Your task to perform on an android device: Open settings on Google Maps Image 0: 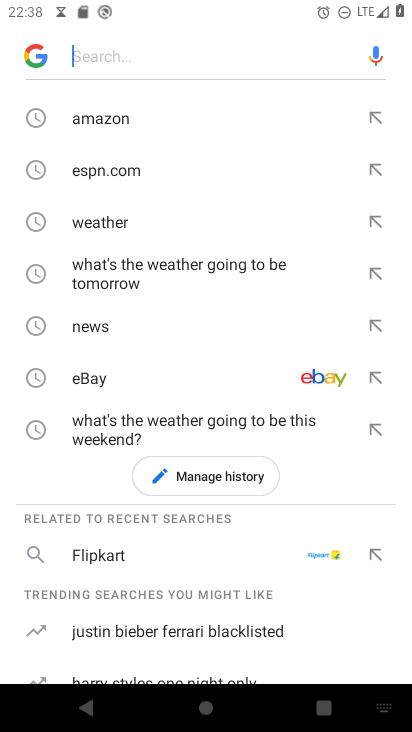
Step 0: press home button
Your task to perform on an android device: Open settings on Google Maps Image 1: 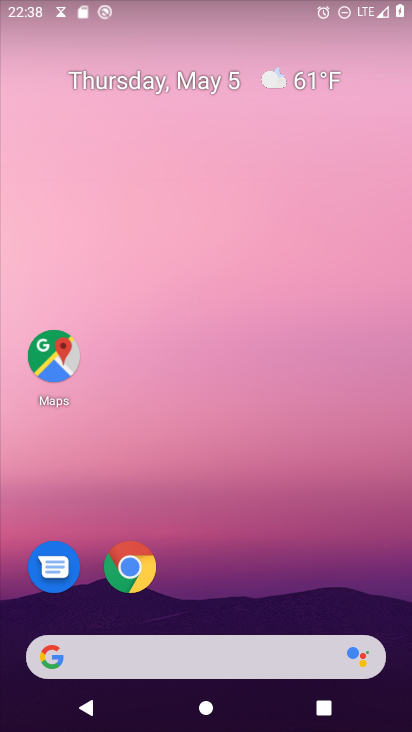
Step 1: drag from (240, 725) to (234, 259)
Your task to perform on an android device: Open settings on Google Maps Image 2: 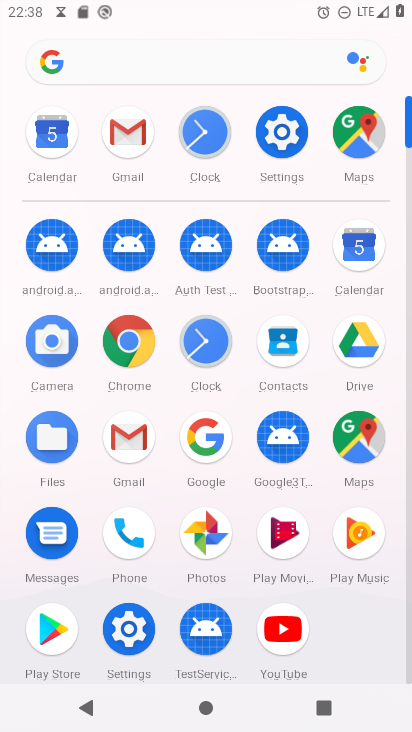
Step 2: click (362, 435)
Your task to perform on an android device: Open settings on Google Maps Image 3: 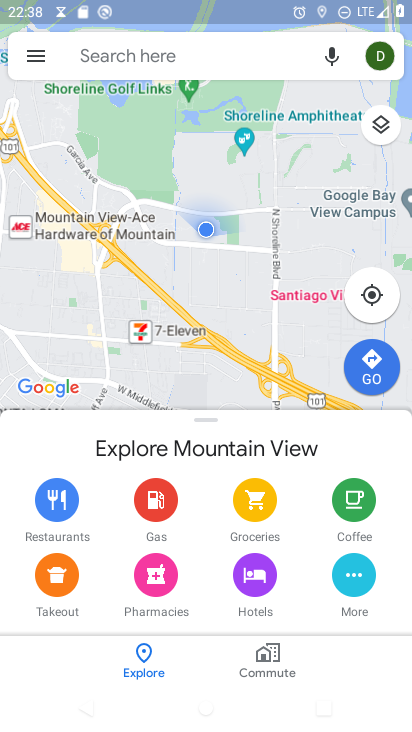
Step 3: click (36, 58)
Your task to perform on an android device: Open settings on Google Maps Image 4: 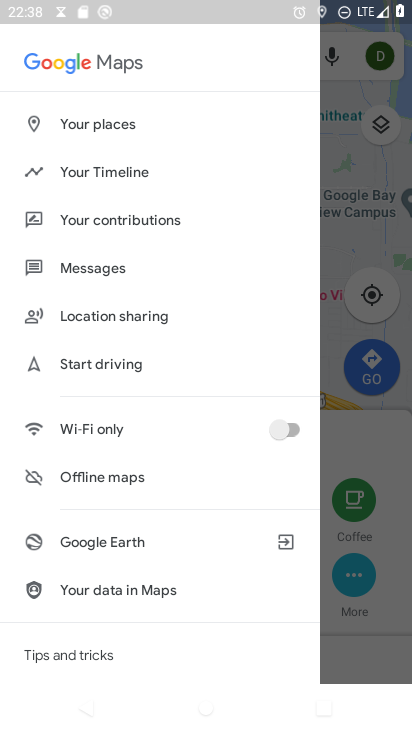
Step 4: drag from (123, 625) to (124, 341)
Your task to perform on an android device: Open settings on Google Maps Image 5: 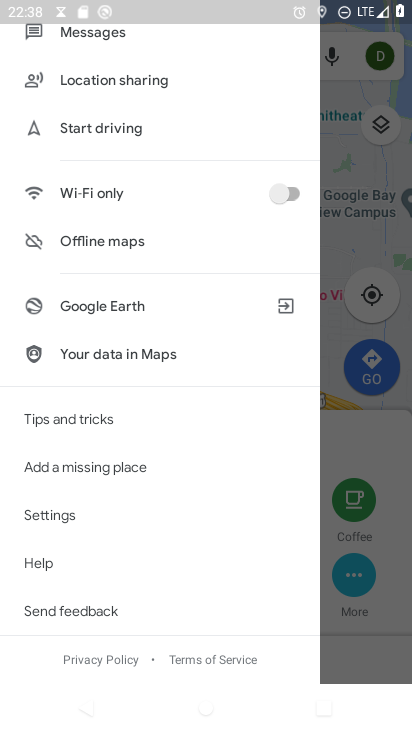
Step 5: click (55, 511)
Your task to perform on an android device: Open settings on Google Maps Image 6: 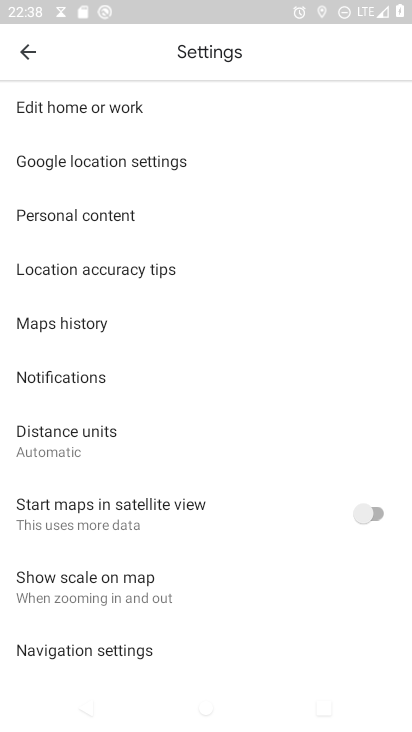
Step 6: task complete